Your task to perform on an android device: open sync settings in chrome Image 0: 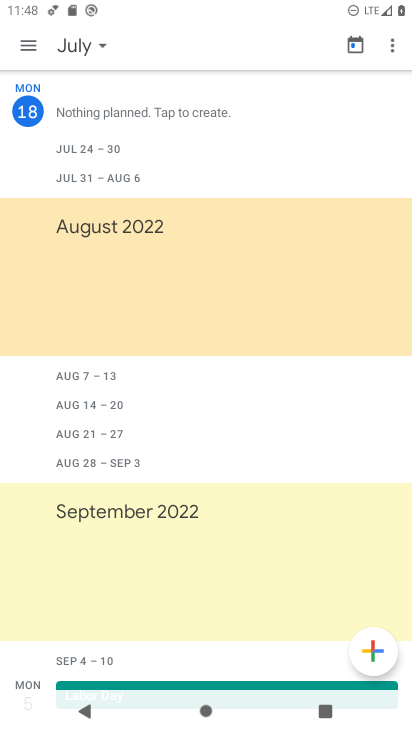
Step 0: press home button
Your task to perform on an android device: open sync settings in chrome Image 1: 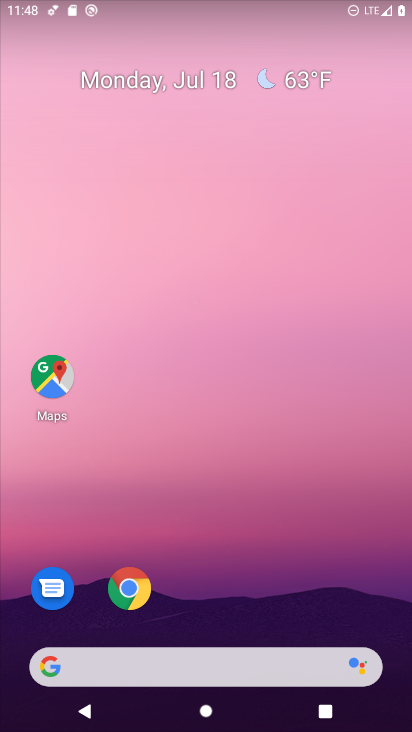
Step 1: click (135, 596)
Your task to perform on an android device: open sync settings in chrome Image 2: 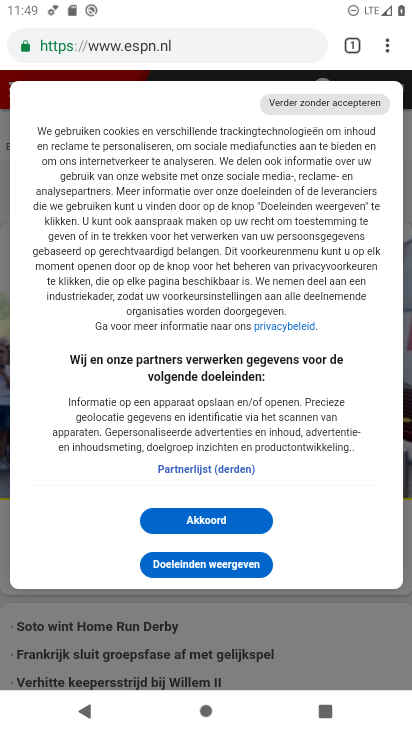
Step 2: click (390, 47)
Your task to perform on an android device: open sync settings in chrome Image 3: 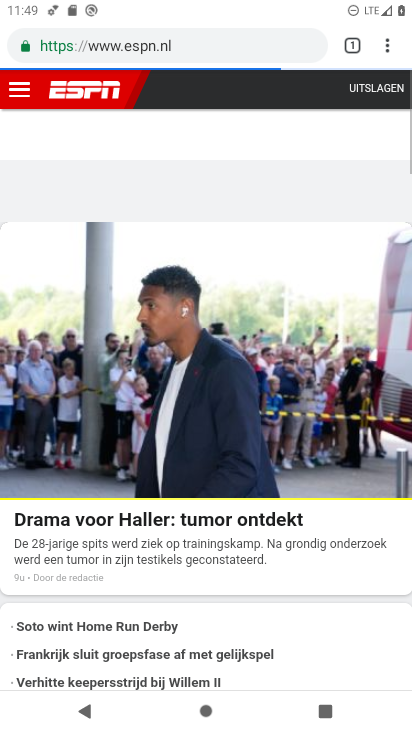
Step 3: click (371, 44)
Your task to perform on an android device: open sync settings in chrome Image 4: 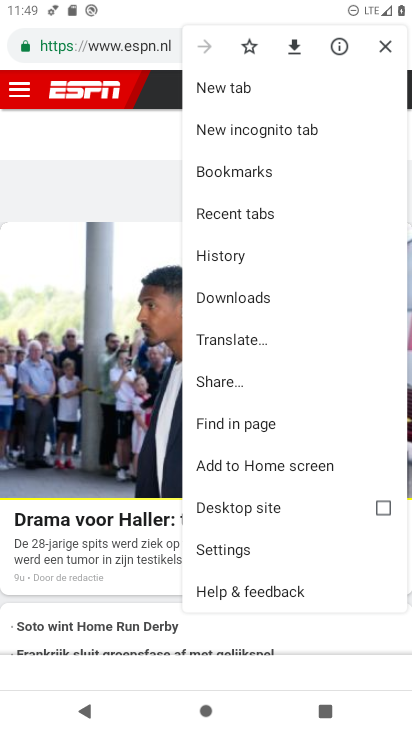
Step 4: click (223, 541)
Your task to perform on an android device: open sync settings in chrome Image 5: 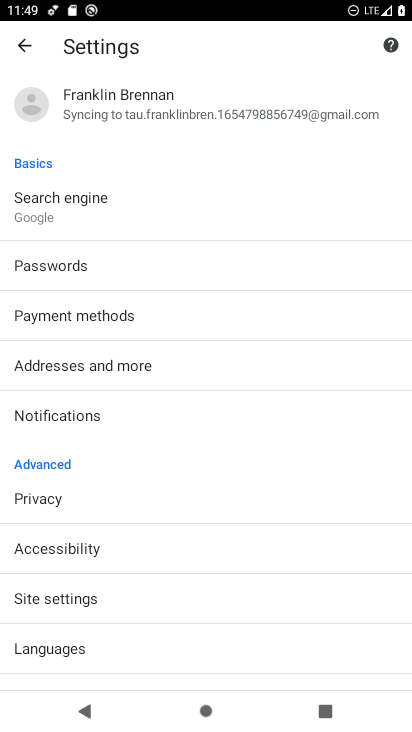
Step 5: click (101, 98)
Your task to perform on an android device: open sync settings in chrome Image 6: 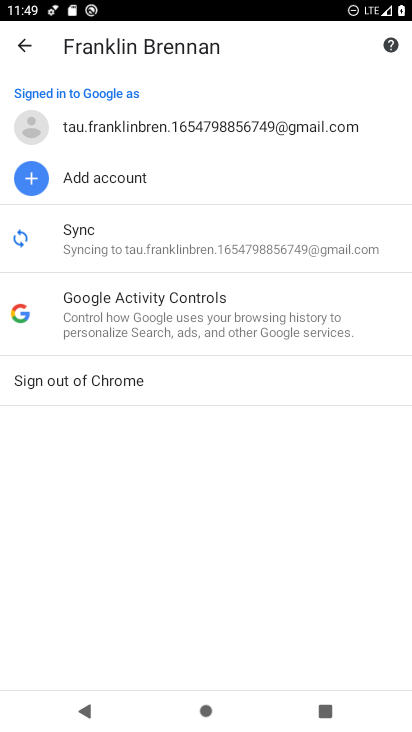
Step 6: click (89, 233)
Your task to perform on an android device: open sync settings in chrome Image 7: 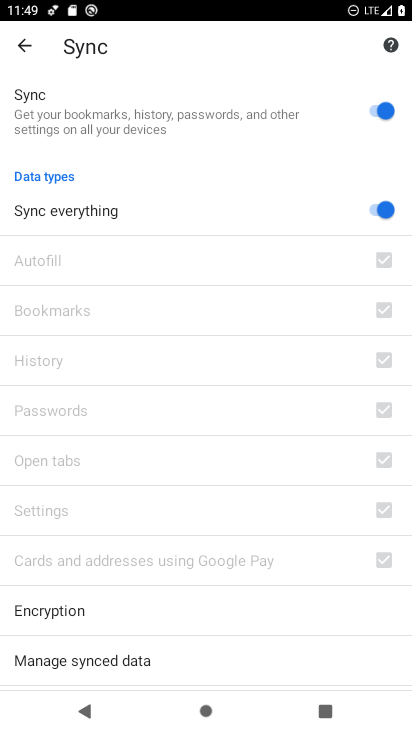
Step 7: task complete